Your task to perform on an android device: Open maps Image 0: 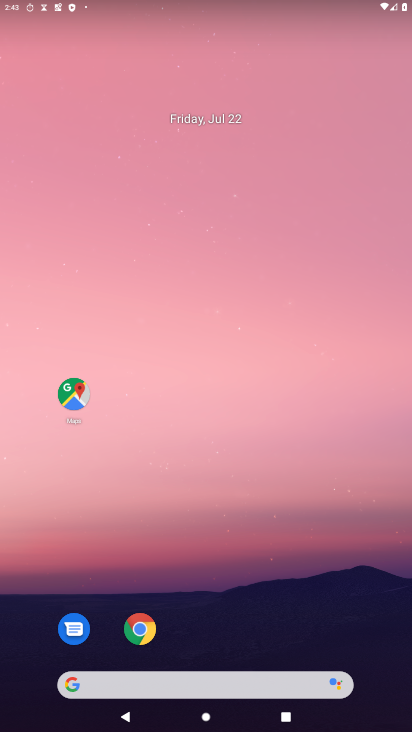
Step 0: drag from (217, 631) to (246, 104)
Your task to perform on an android device: Open maps Image 1: 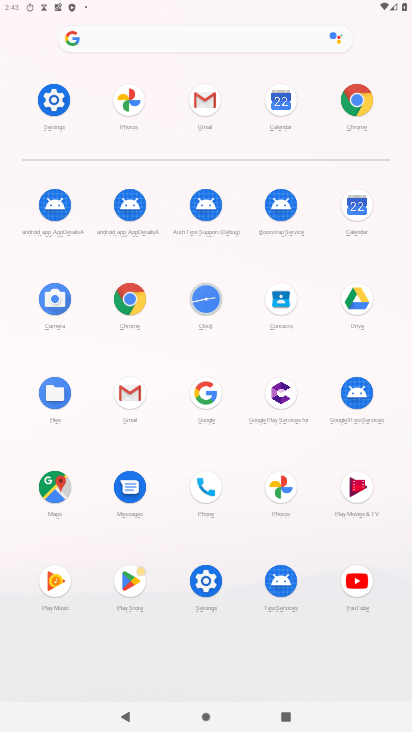
Step 1: click (66, 488)
Your task to perform on an android device: Open maps Image 2: 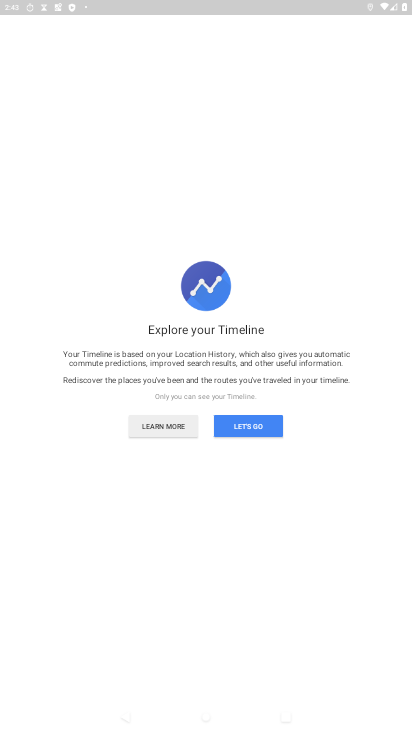
Step 2: click (253, 425)
Your task to perform on an android device: Open maps Image 3: 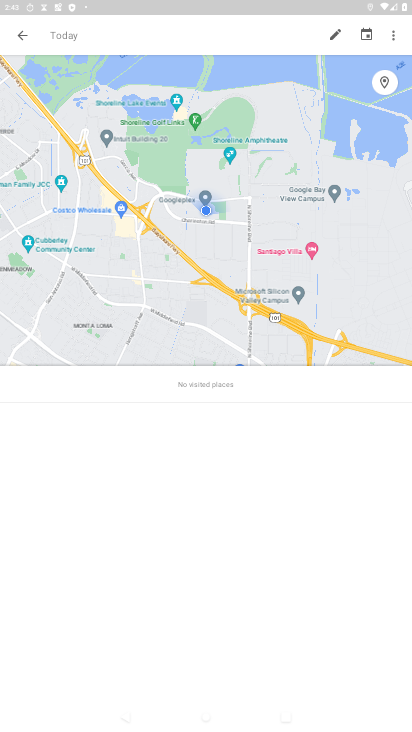
Step 3: task complete